Your task to perform on an android device: Open location settings Image 0: 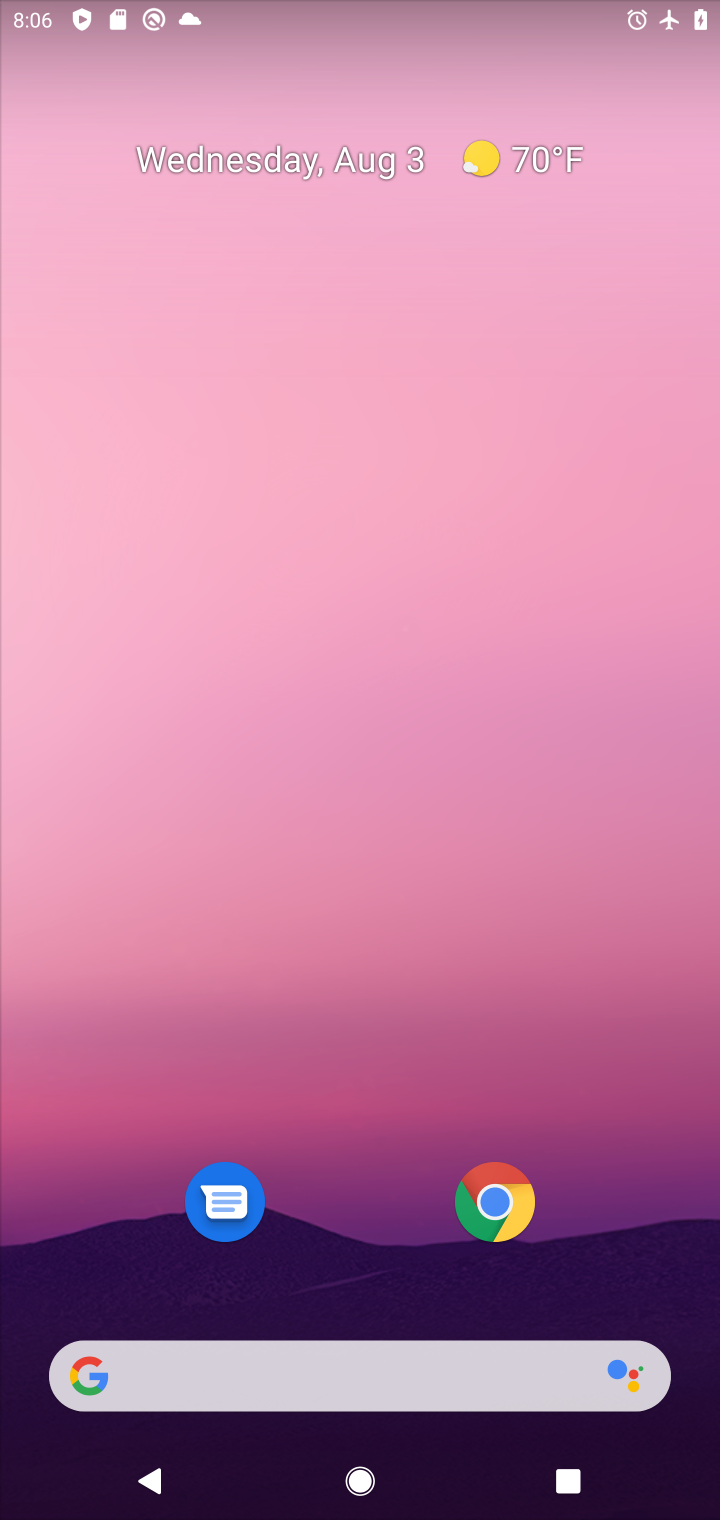
Step 0: press home button
Your task to perform on an android device: Open location settings Image 1: 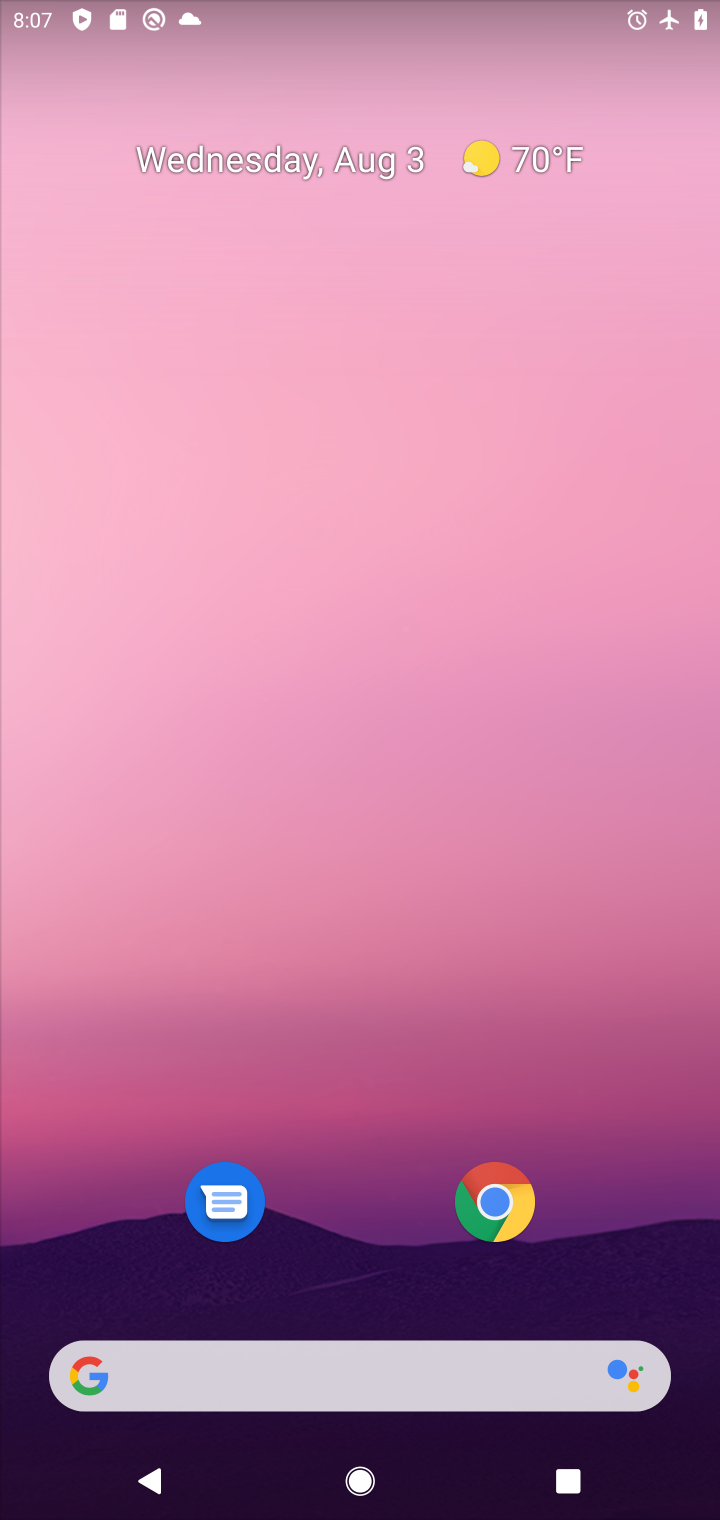
Step 1: drag from (283, 1379) to (359, 101)
Your task to perform on an android device: Open location settings Image 2: 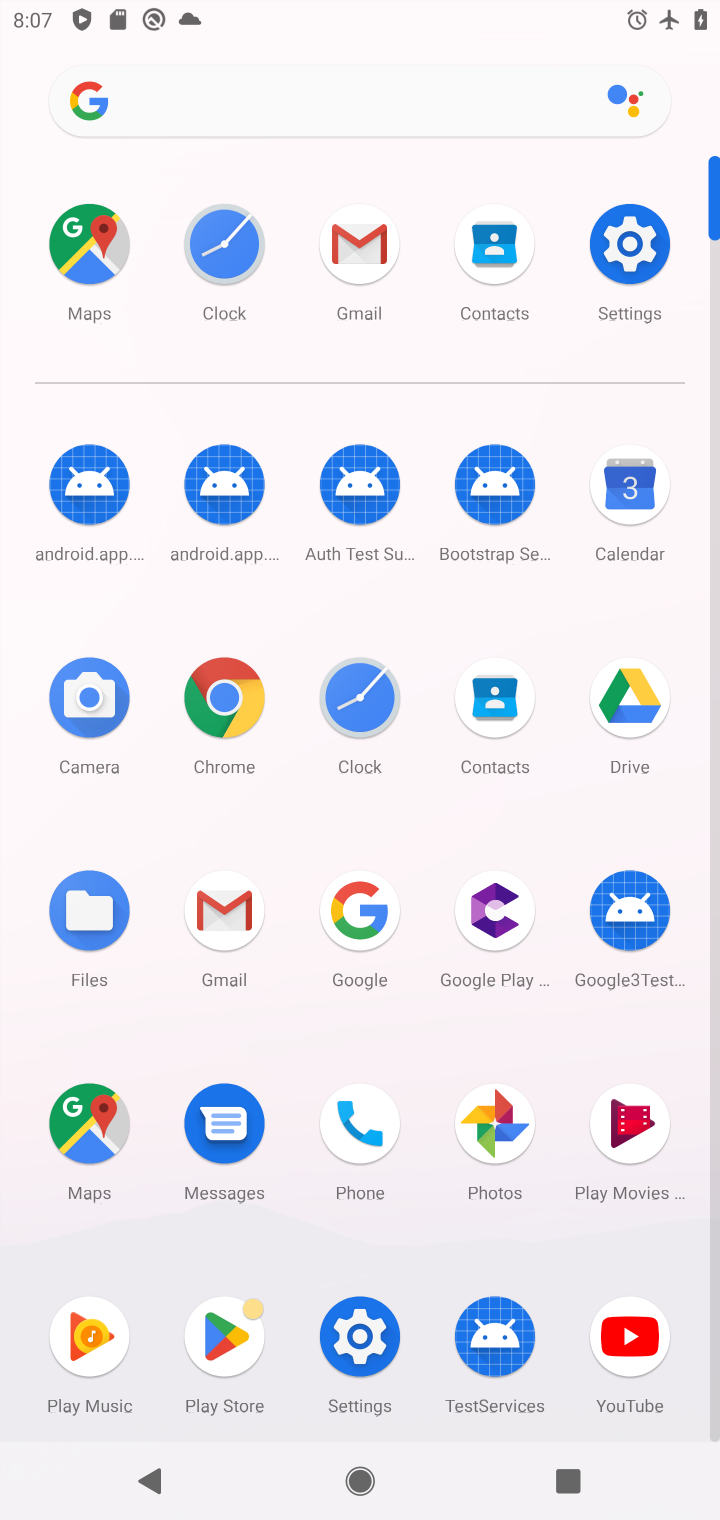
Step 2: click (626, 247)
Your task to perform on an android device: Open location settings Image 3: 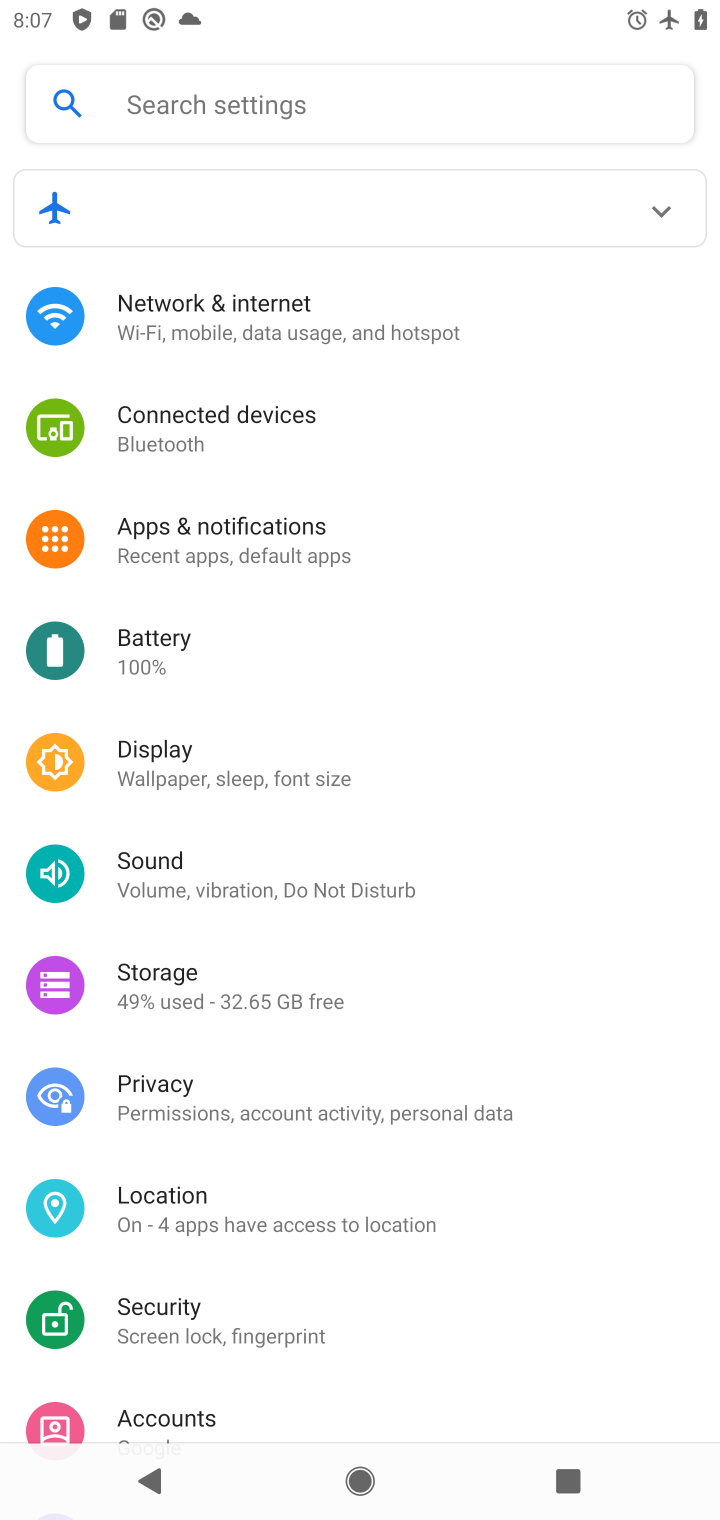
Step 3: click (181, 1203)
Your task to perform on an android device: Open location settings Image 4: 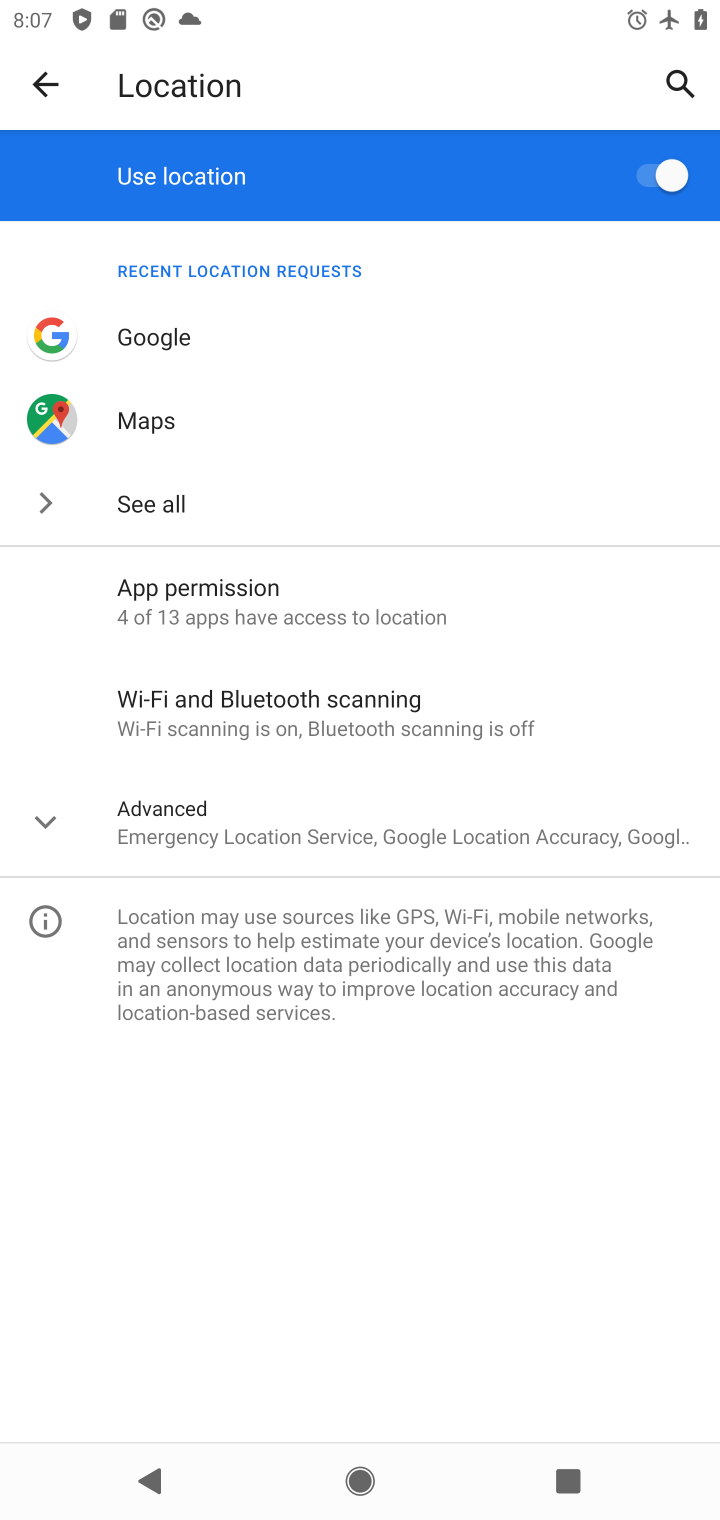
Step 4: task complete